Your task to perform on an android device: Open Amazon Image 0: 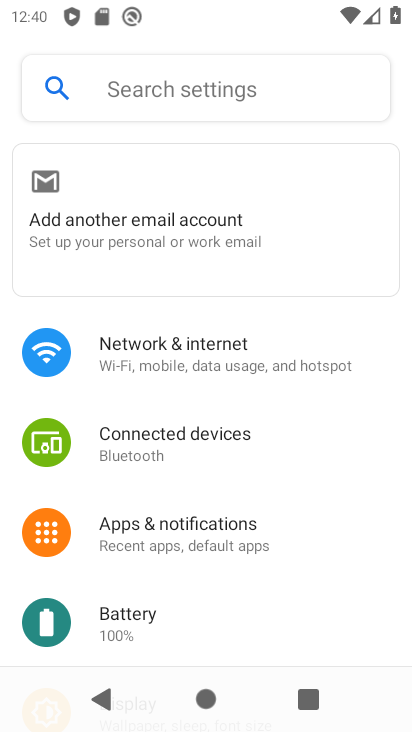
Step 0: press home button
Your task to perform on an android device: Open Amazon Image 1: 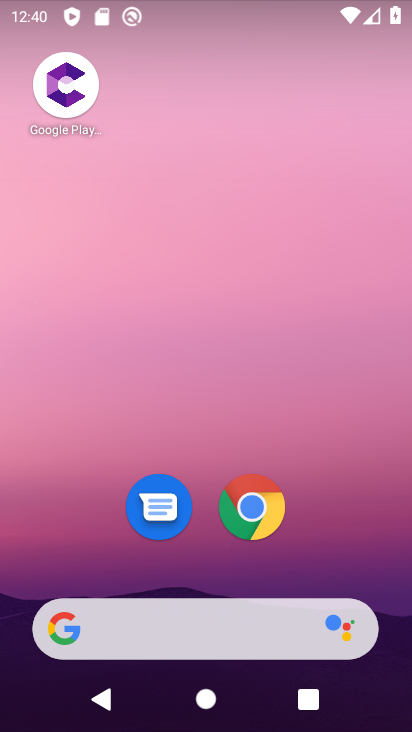
Step 1: click (249, 511)
Your task to perform on an android device: Open Amazon Image 2: 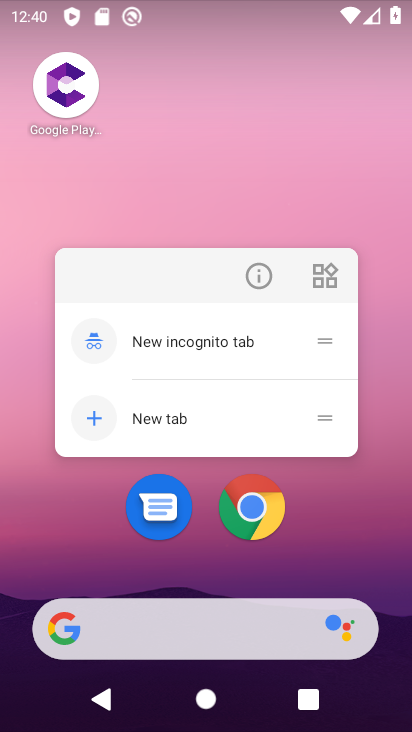
Step 2: click (256, 505)
Your task to perform on an android device: Open Amazon Image 3: 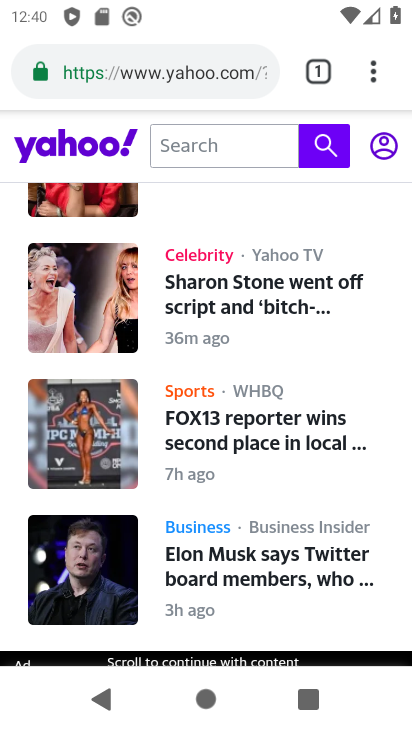
Step 3: click (319, 71)
Your task to perform on an android device: Open Amazon Image 4: 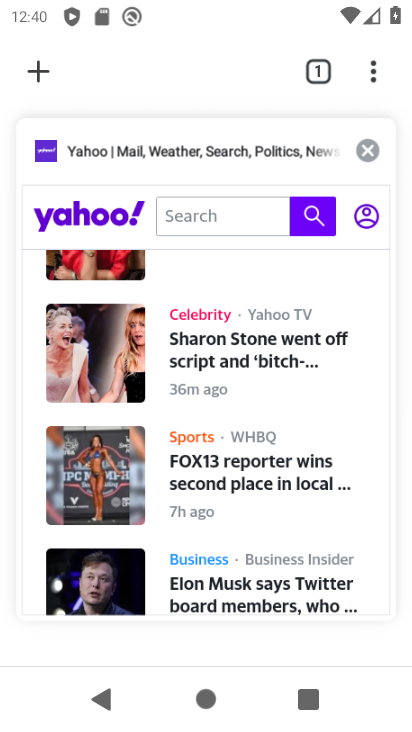
Step 4: click (39, 75)
Your task to perform on an android device: Open Amazon Image 5: 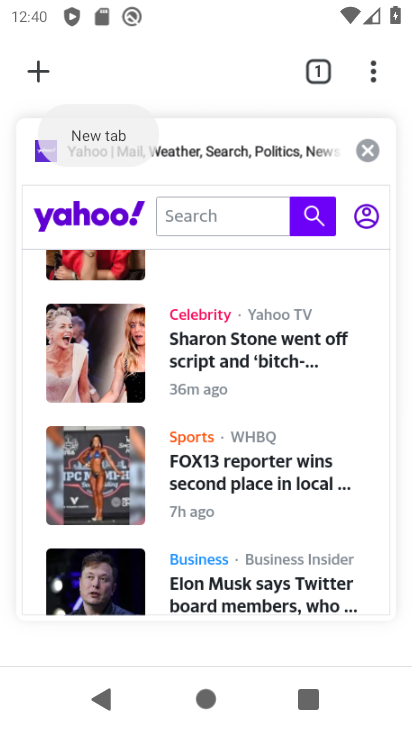
Step 5: click (45, 76)
Your task to perform on an android device: Open Amazon Image 6: 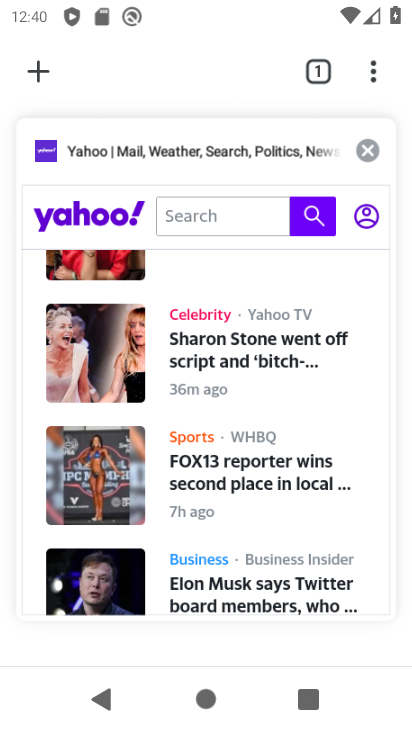
Step 6: click (45, 76)
Your task to perform on an android device: Open Amazon Image 7: 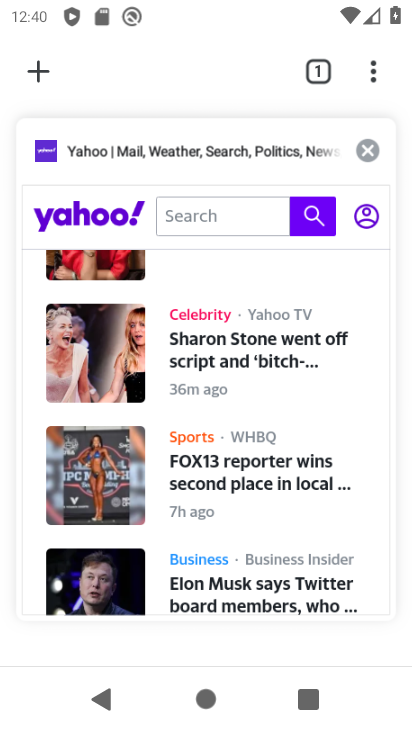
Step 7: click (45, 73)
Your task to perform on an android device: Open Amazon Image 8: 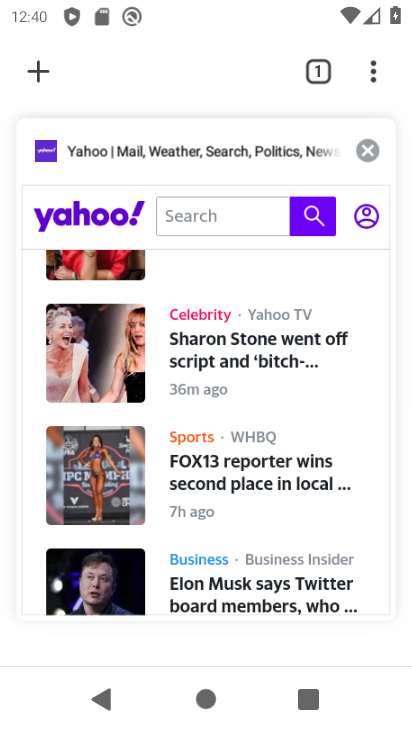
Step 8: click (43, 72)
Your task to perform on an android device: Open Amazon Image 9: 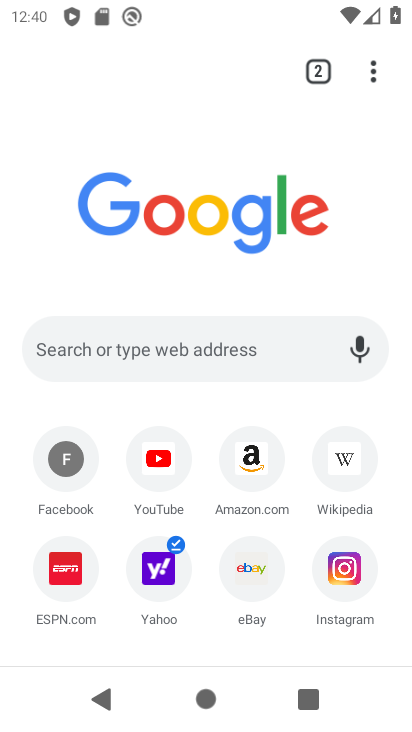
Step 9: click (250, 452)
Your task to perform on an android device: Open Amazon Image 10: 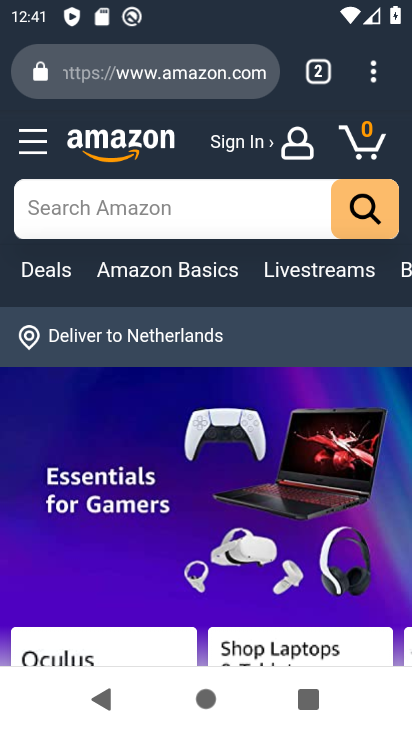
Step 10: task complete